Your task to perform on an android device: toggle airplane mode Image 0: 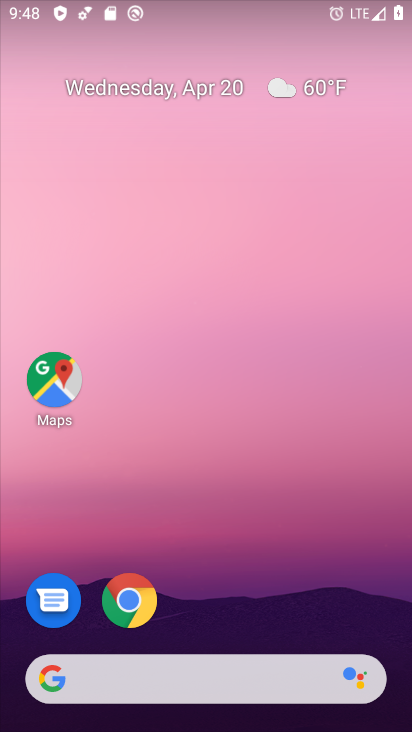
Step 0: drag from (249, 632) to (391, 521)
Your task to perform on an android device: toggle airplane mode Image 1: 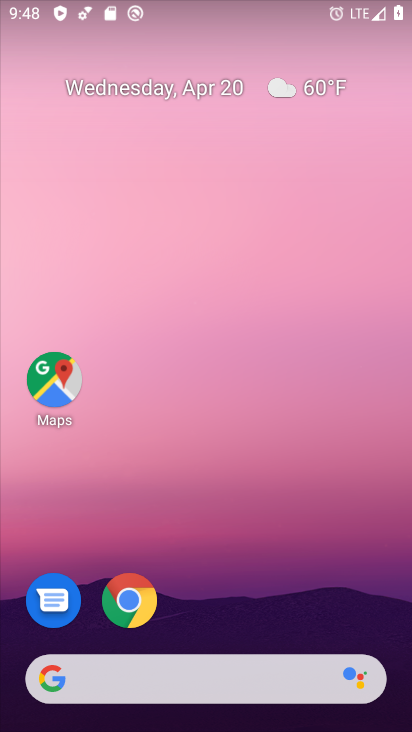
Step 1: drag from (192, 655) to (147, 10)
Your task to perform on an android device: toggle airplane mode Image 2: 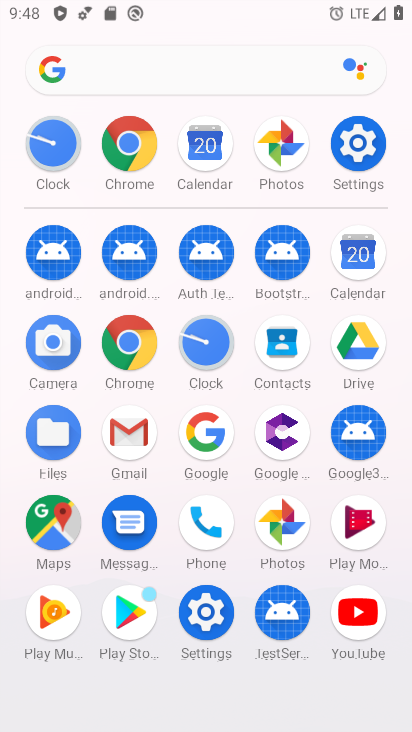
Step 2: click (355, 139)
Your task to perform on an android device: toggle airplane mode Image 3: 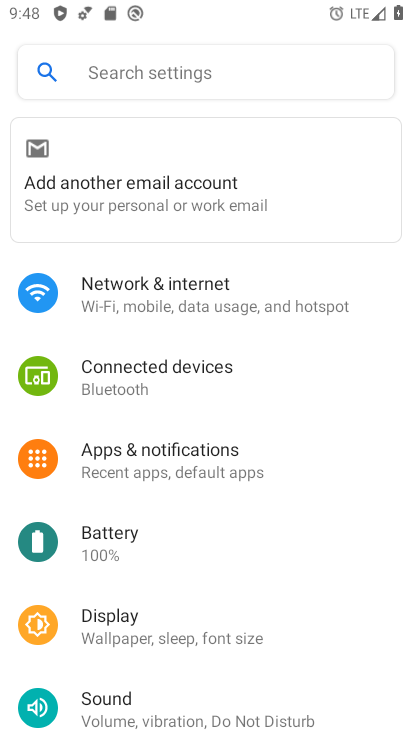
Step 3: click (182, 279)
Your task to perform on an android device: toggle airplane mode Image 4: 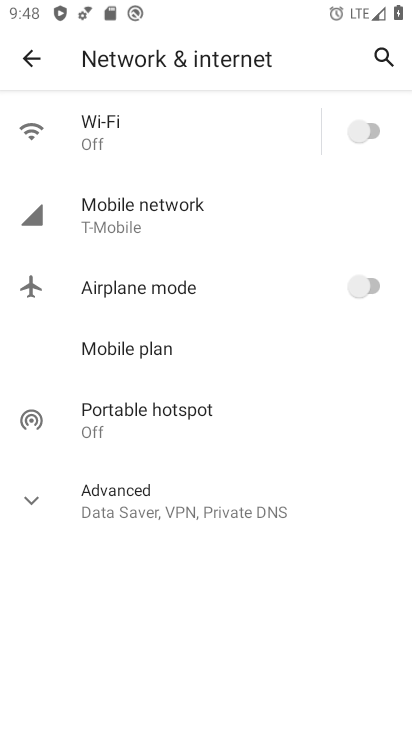
Step 4: click (356, 280)
Your task to perform on an android device: toggle airplane mode Image 5: 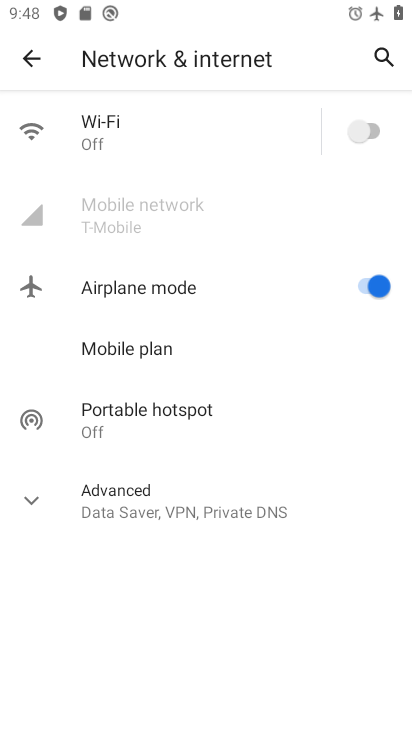
Step 5: task complete